Your task to perform on an android device: Open the calendar app, open the side menu, and click the "Day" option Image 0: 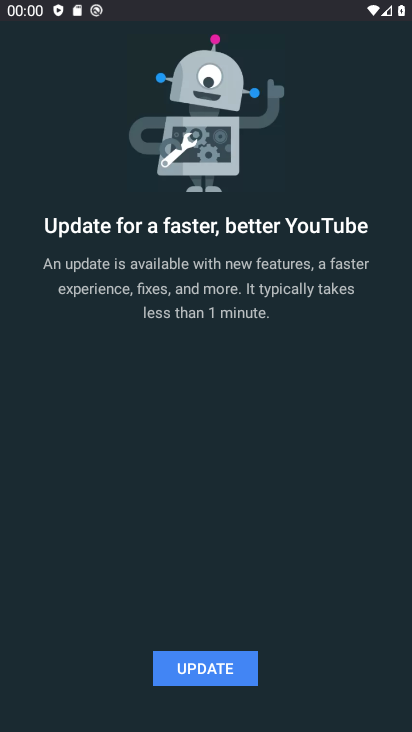
Step 0: press home button
Your task to perform on an android device: Open the calendar app, open the side menu, and click the "Day" option Image 1: 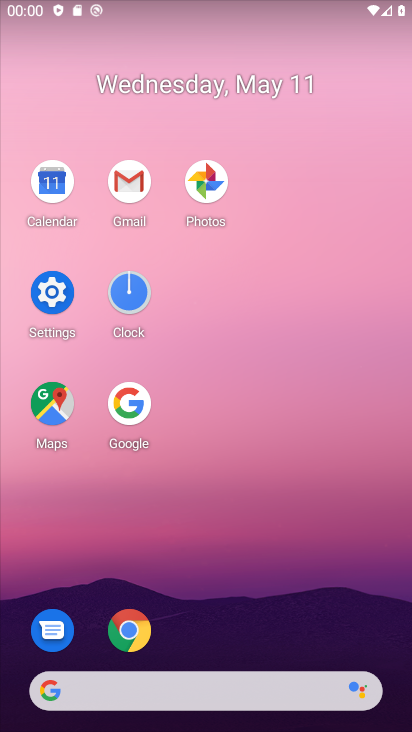
Step 1: click (57, 185)
Your task to perform on an android device: Open the calendar app, open the side menu, and click the "Day" option Image 2: 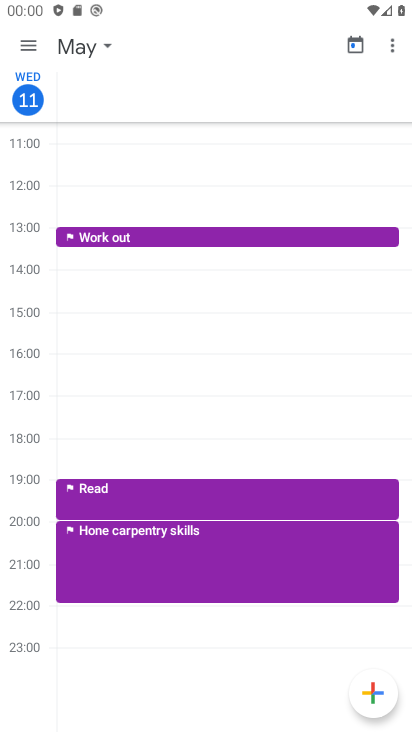
Step 2: click (31, 39)
Your task to perform on an android device: Open the calendar app, open the side menu, and click the "Day" option Image 3: 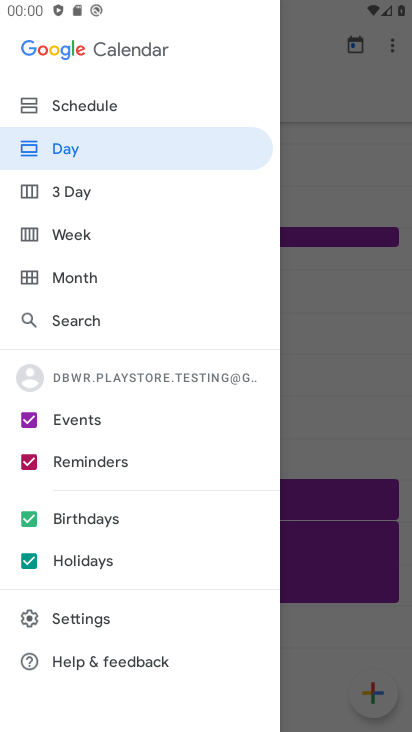
Step 3: click (98, 191)
Your task to perform on an android device: Open the calendar app, open the side menu, and click the "Day" option Image 4: 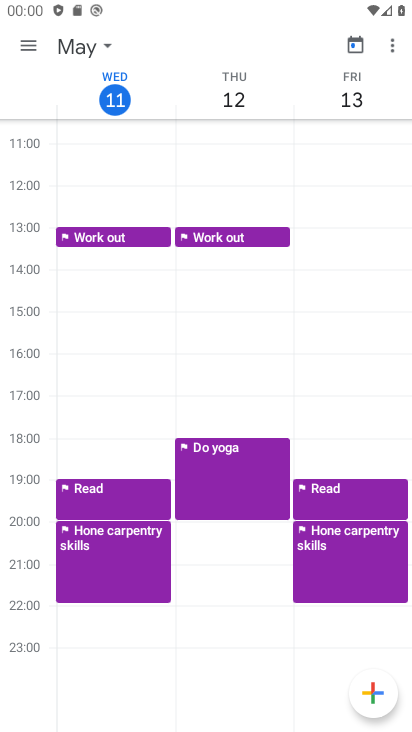
Step 4: task complete